Your task to perform on an android device: Go to eBay Image 0: 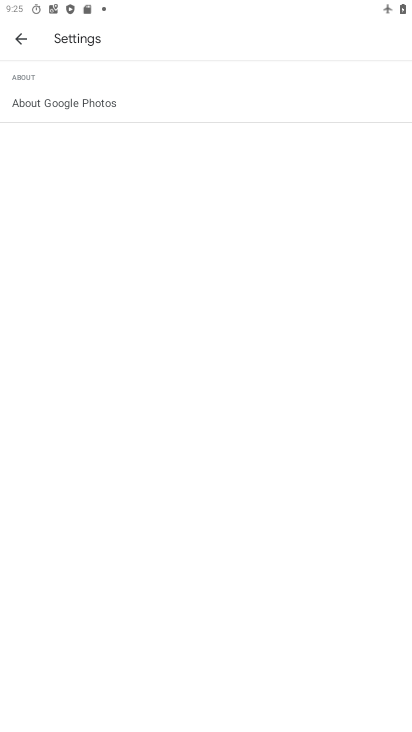
Step 0: press home button
Your task to perform on an android device: Go to eBay Image 1: 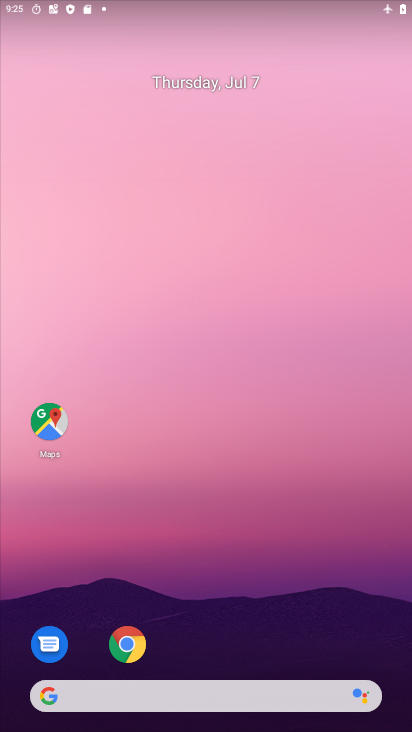
Step 1: click (130, 645)
Your task to perform on an android device: Go to eBay Image 2: 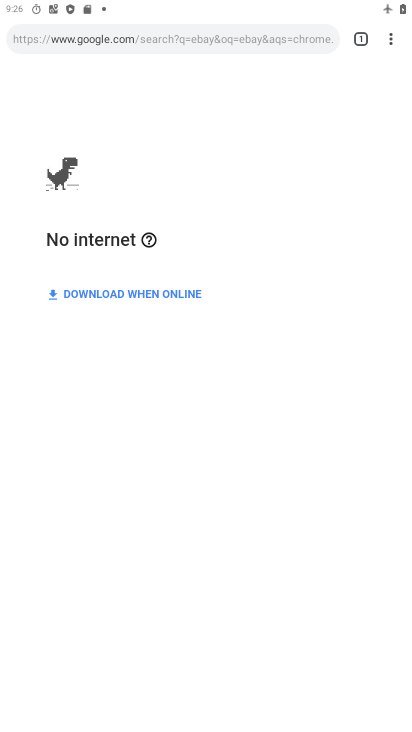
Step 2: click (210, 36)
Your task to perform on an android device: Go to eBay Image 3: 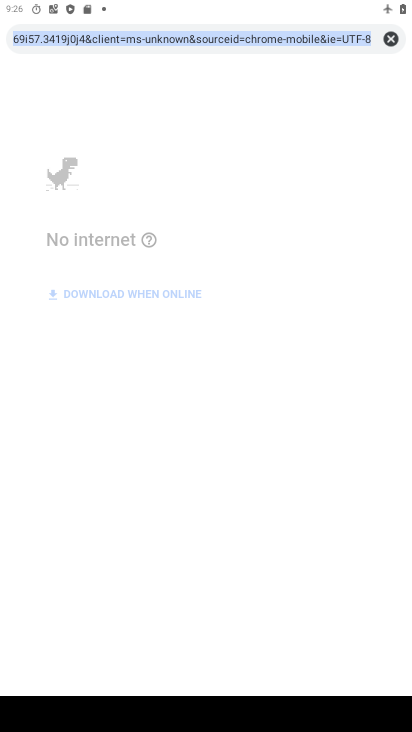
Step 3: type "ebay"
Your task to perform on an android device: Go to eBay Image 4: 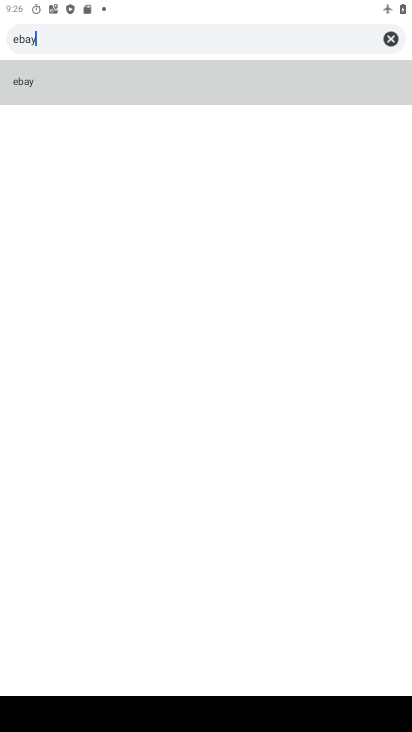
Step 4: click (27, 84)
Your task to perform on an android device: Go to eBay Image 5: 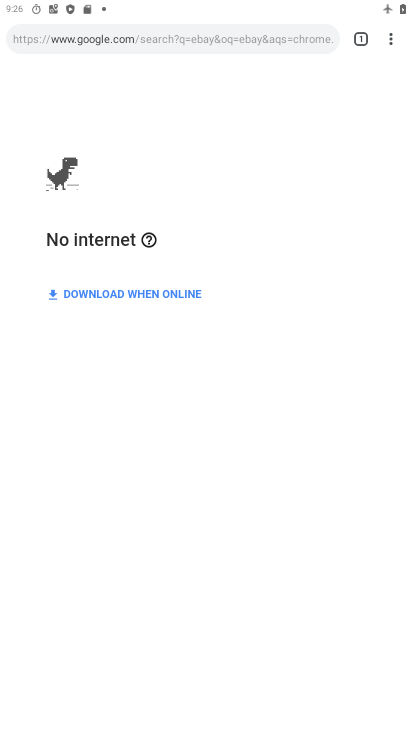
Step 5: task complete